Your task to perform on an android device: Check the weather Image 0: 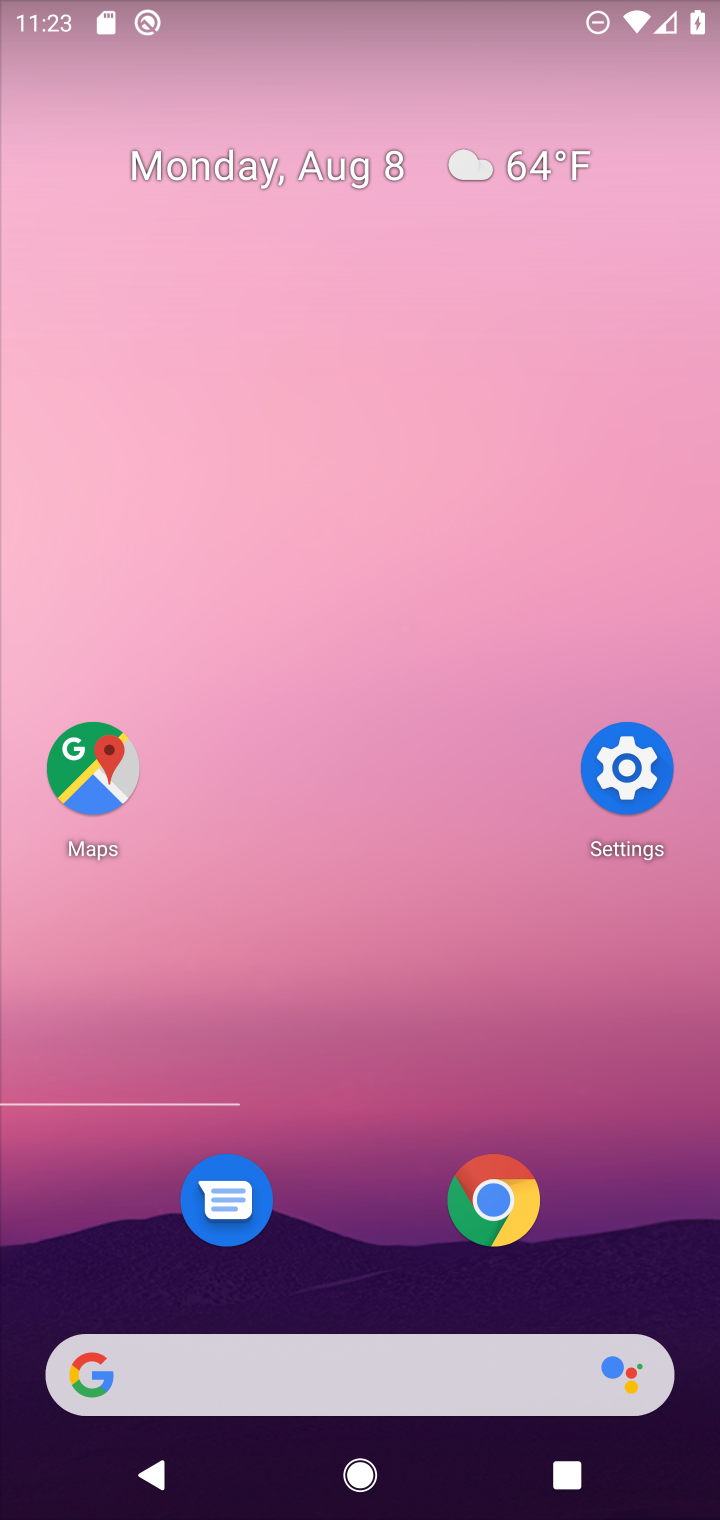
Step 0: click (274, 1363)
Your task to perform on an android device: Check the weather Image 1: 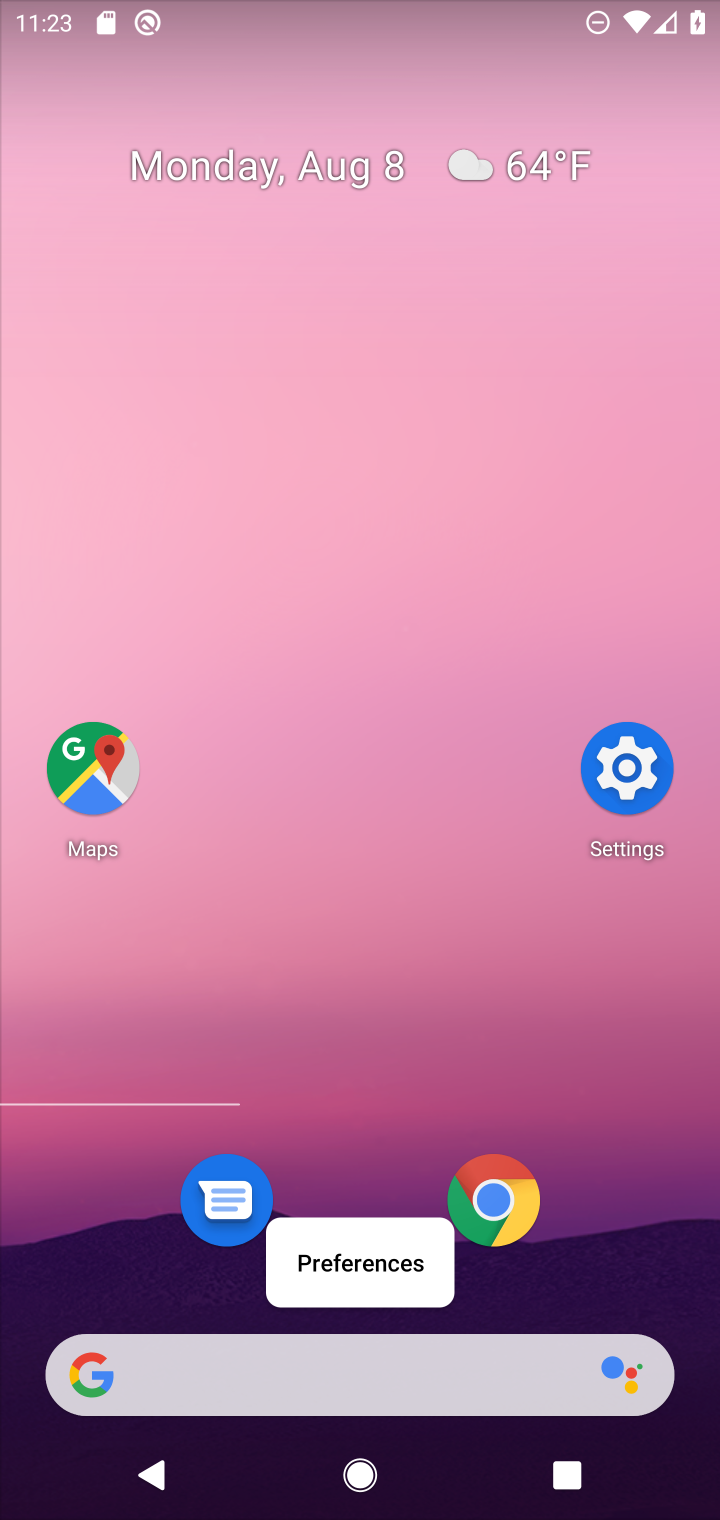
Step 1: click (268, 1365)
Your task to perform on an android device: Check the weather Image 2: 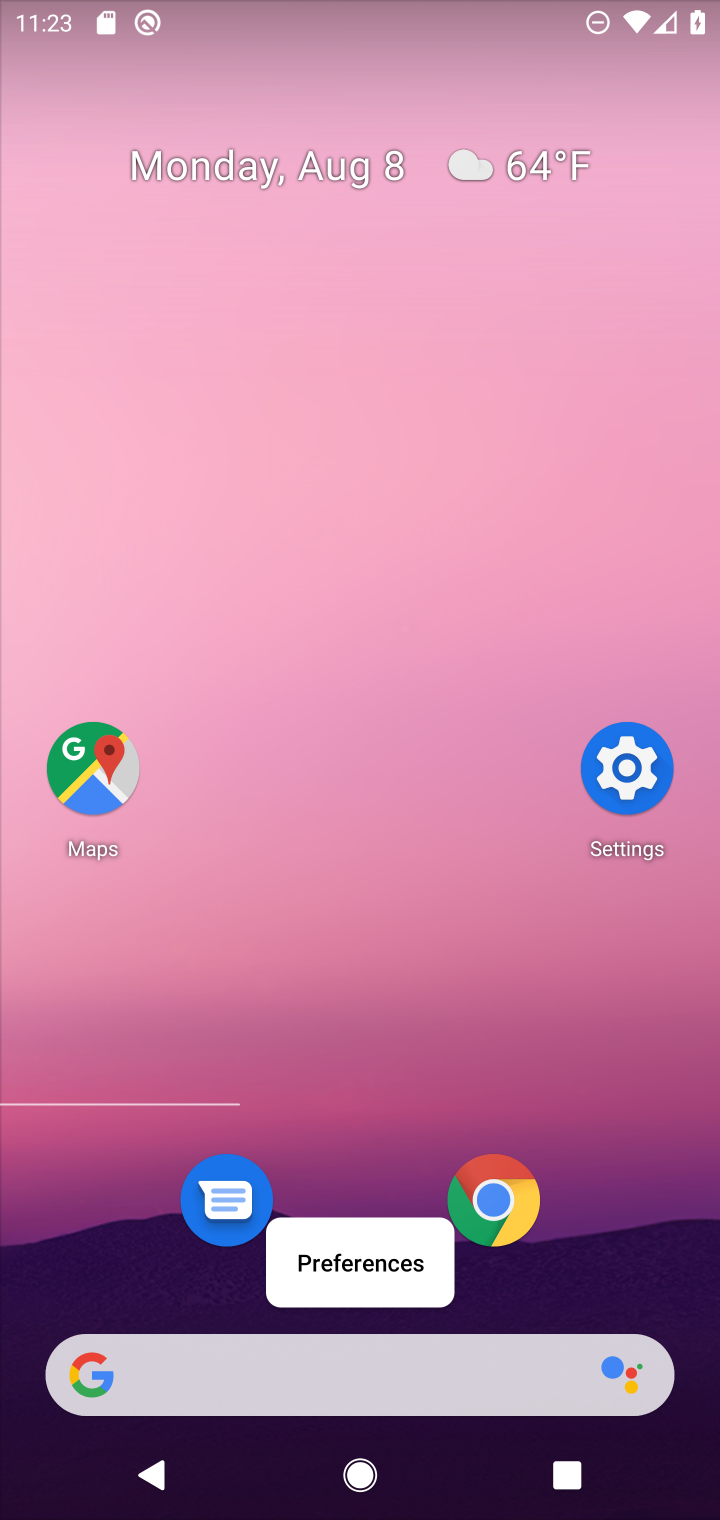
Step 2: click (268, 1374)
Your task to perform on an android device: Check the weather Image 3: 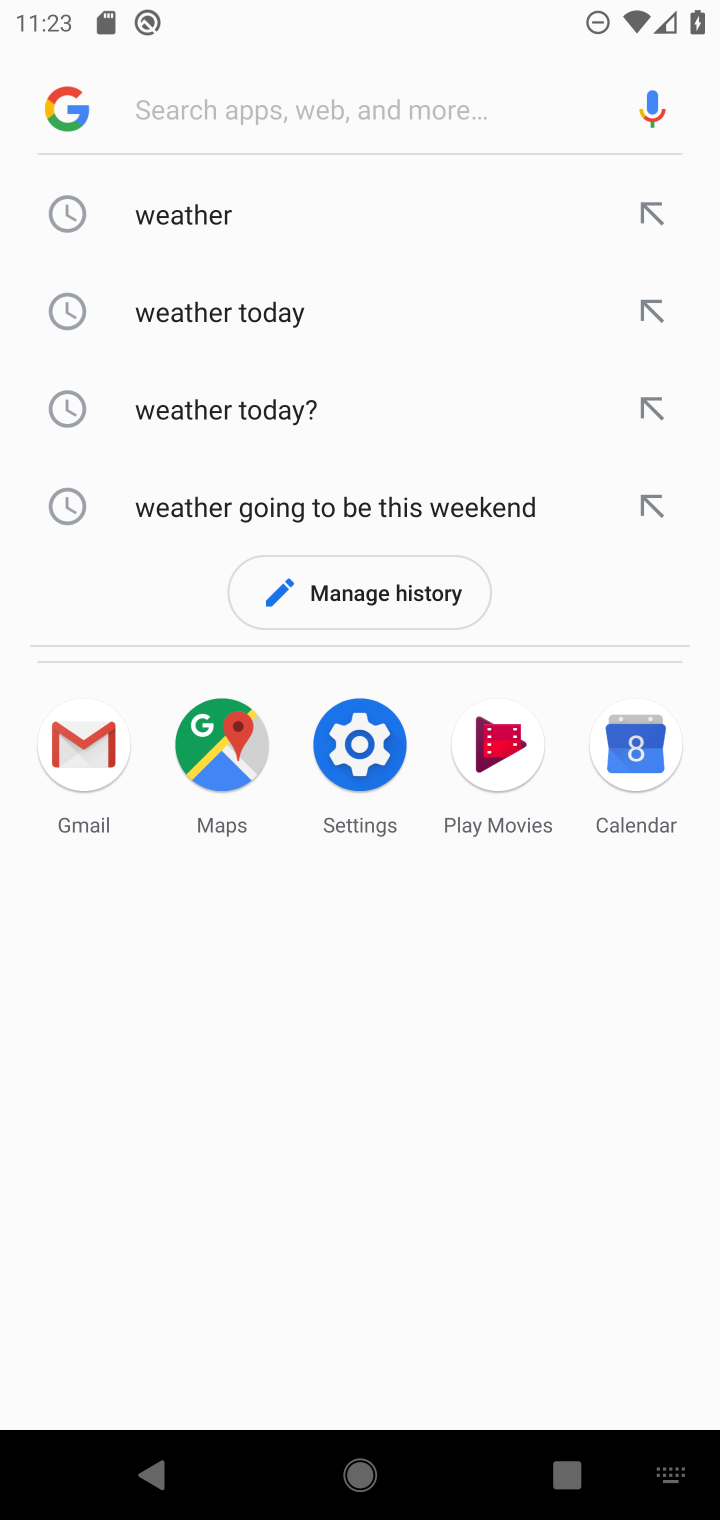
Step 3: click (647, 208)
Your task to perform on an android device: Check the weather Image 4: 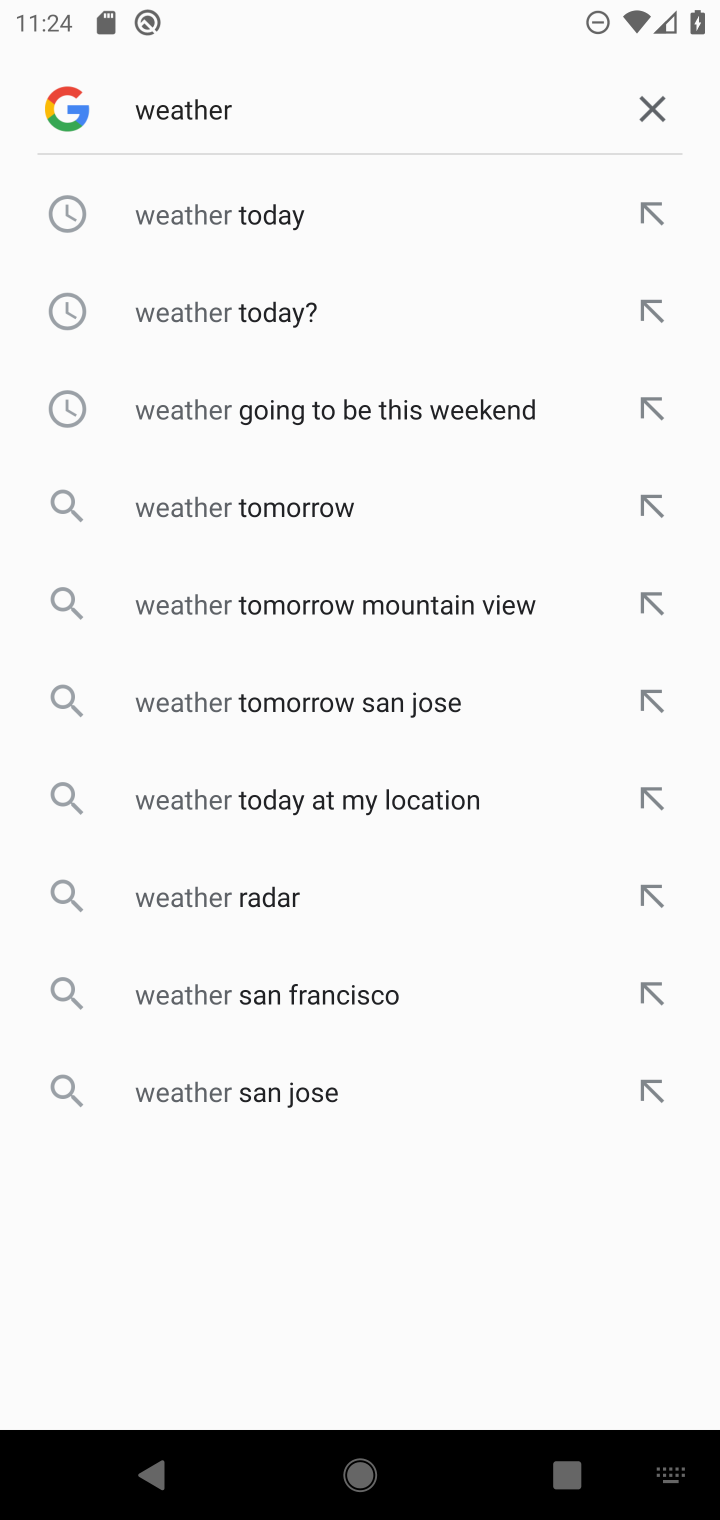
Step 4: click (286, 211)
Your task to perform on an android device: Check the weather Image 5: 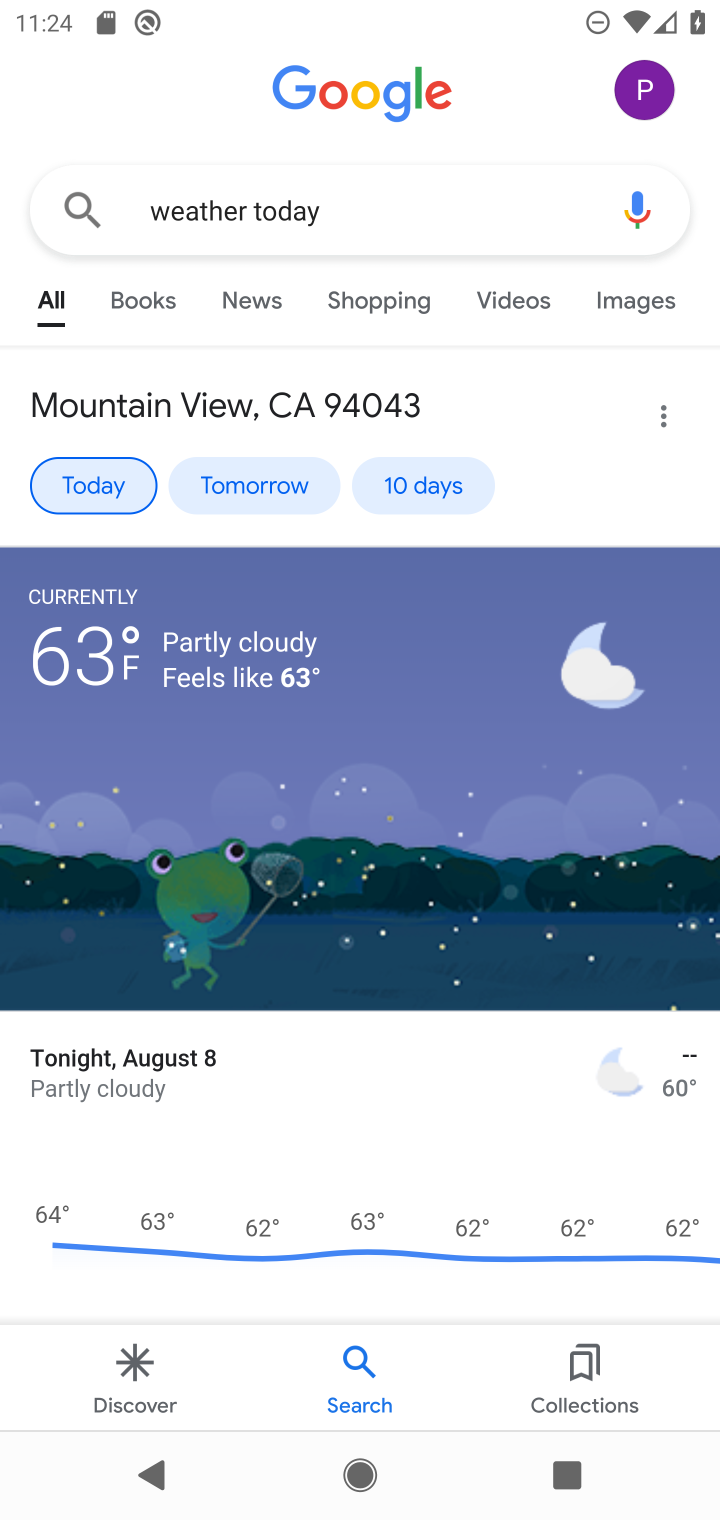
Step 5: task complete